Your task to perform on an android device: uninstall "WhatsApp Messenger" Image 0: 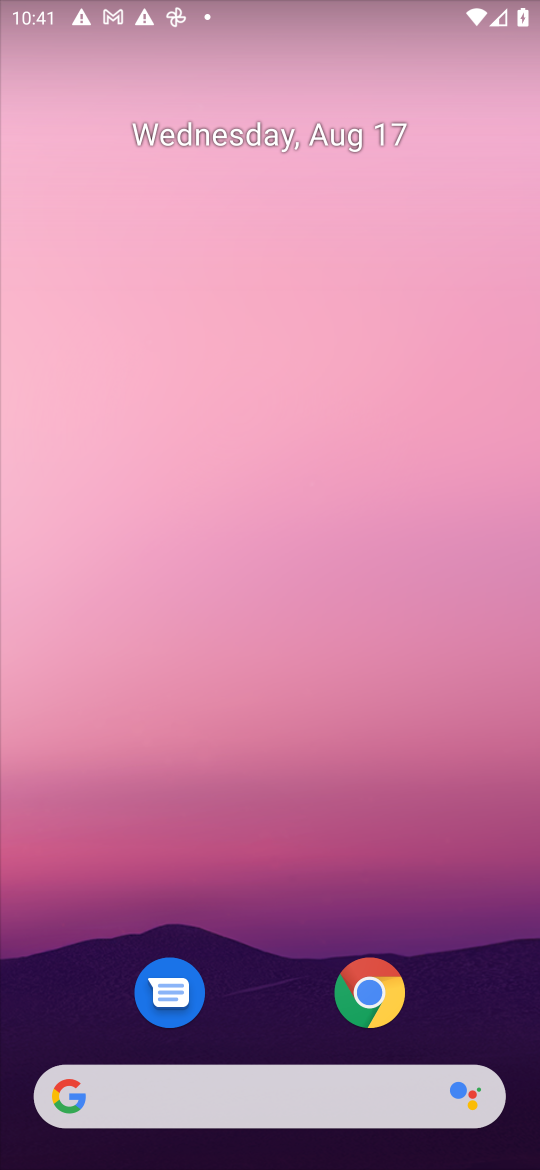
Step 0: drag from (459, 888) to (292, 69)
Your task to perform on an android device: uninstall "WhatsApp Messenger" Image 1: 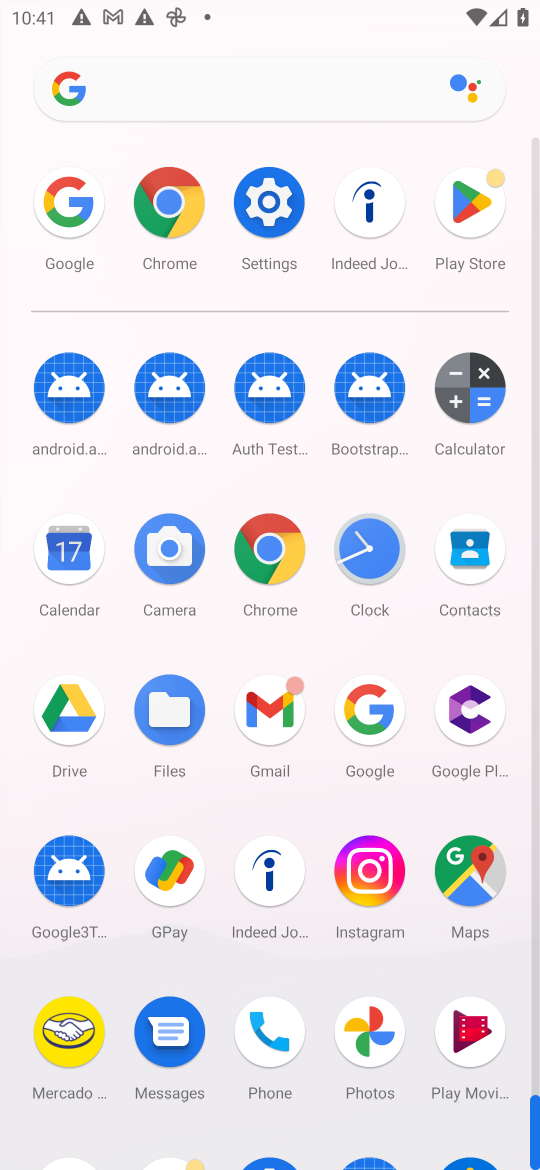
Step 1: click (466, 207)
Your task to perform on an android device: uninstall "WhatsApp Messenger" Image 2: 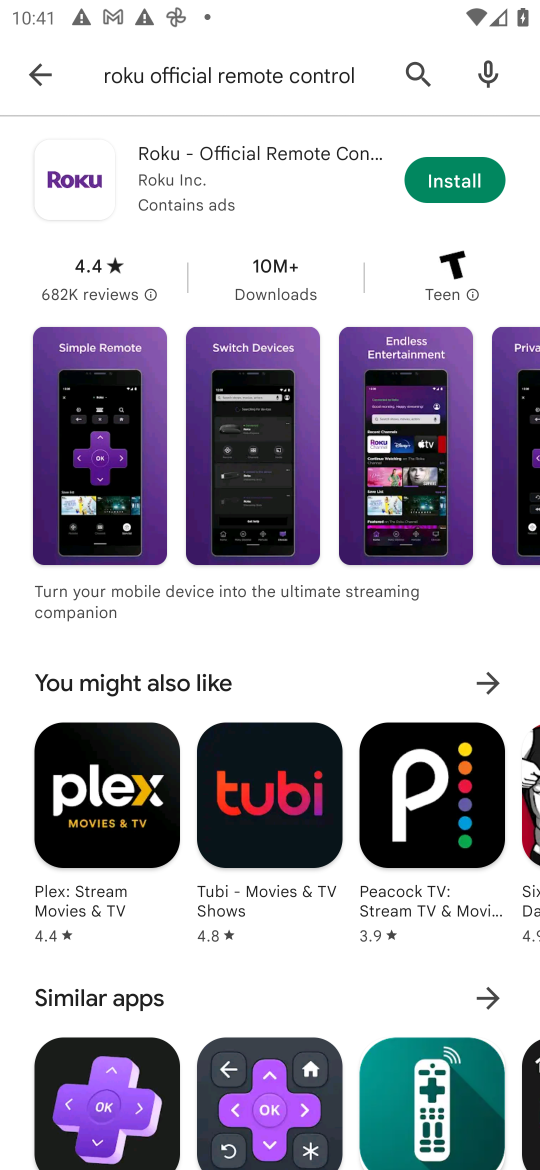
Step 2: press back button
Your task to perform on an android device: uninstall "WhatsApp Messenger" Image 3: 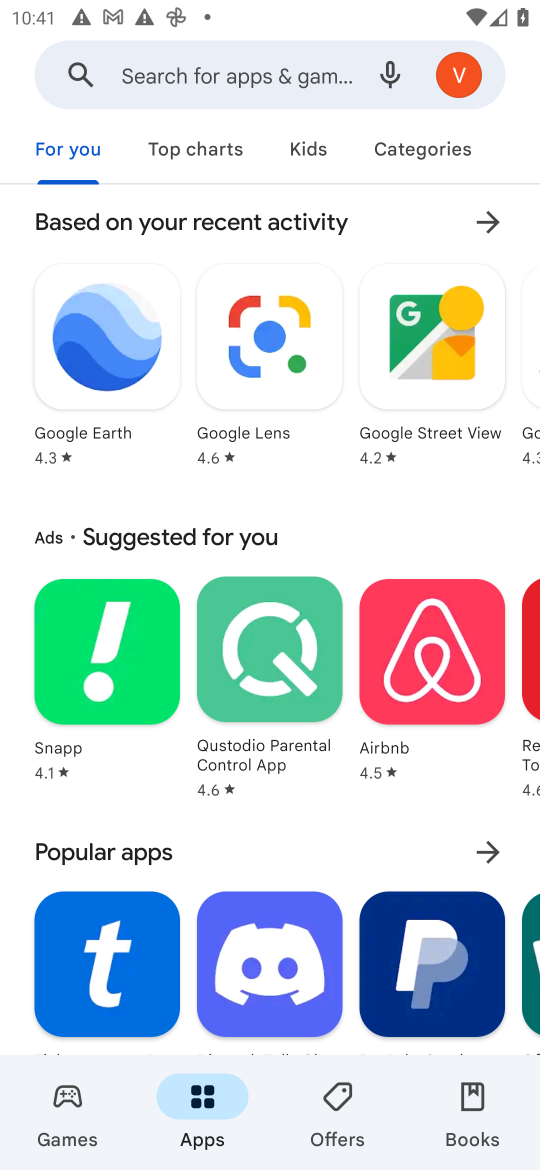
Step 3: click (190, 70)
Your task to perform on an android device: uninstall "WhatsApp Messenger" Image 4: 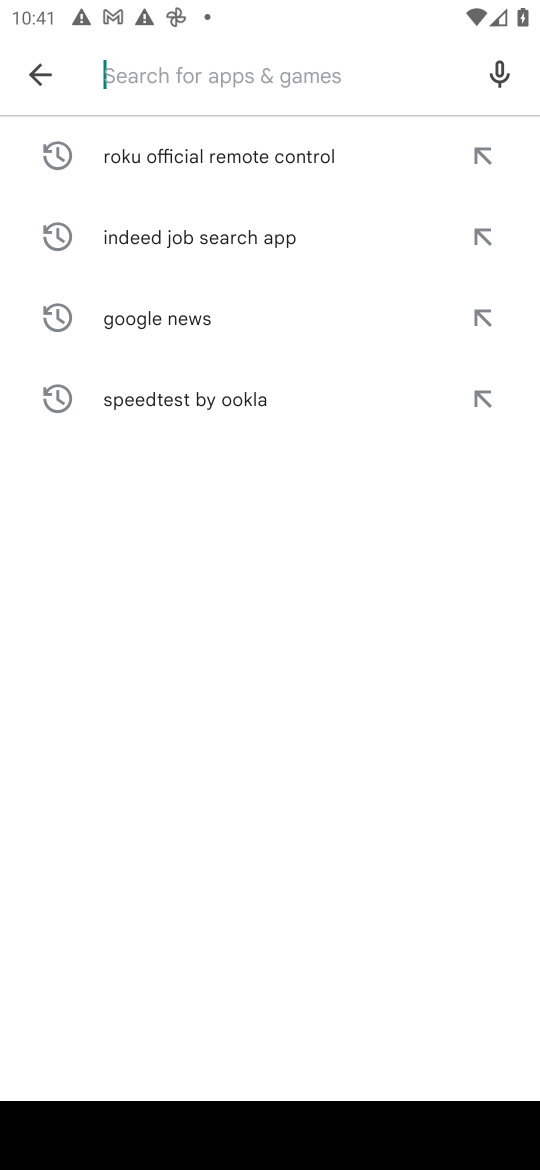
Step 4: type "WhatsApp Messenger"
Your task to perform on an android device: uninstall "WhatsApp Messenger" Image 5: 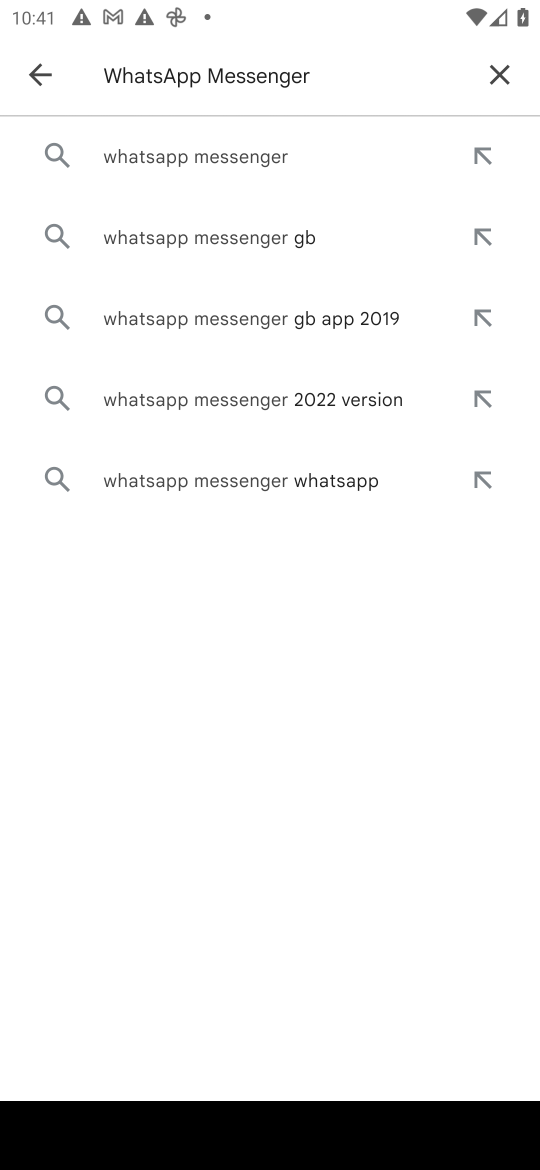
Step 5: click (248, 178)
Your task to perform on an android device: uninstall "WhatsApp Messenger" Image 6: 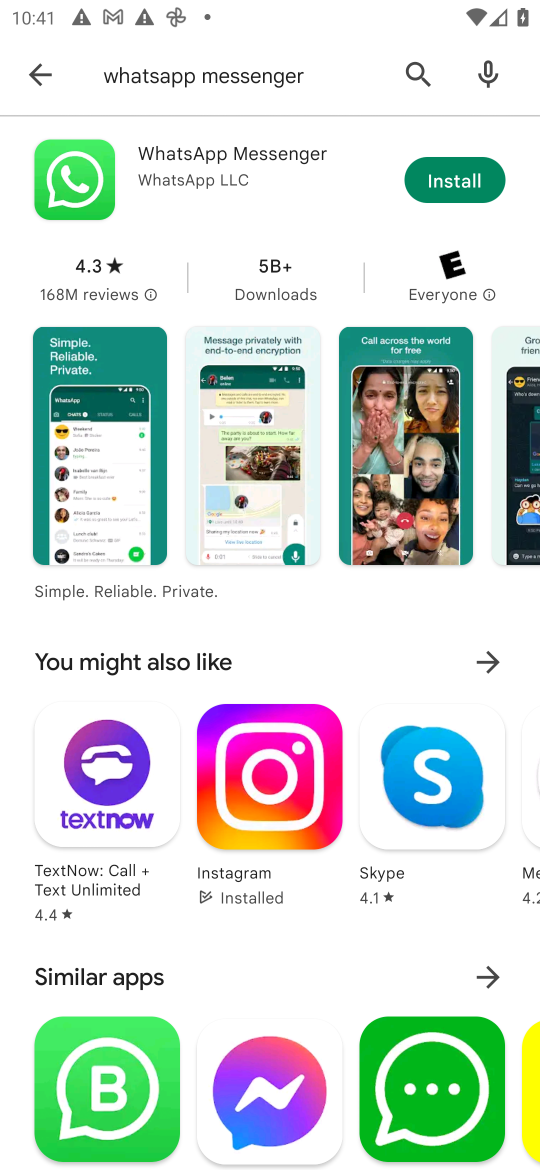
Step 6: task complete